Your task to perform on an android device: Go to wifi settings Image 0: 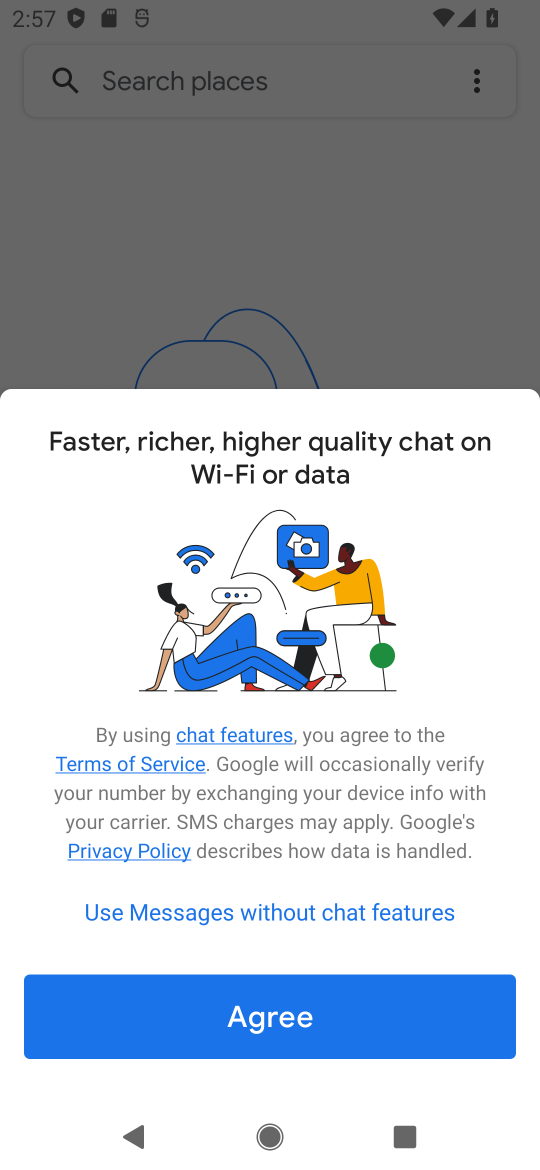
Step 0: press home button
Your task to perform on an android device: Go to wifi settings Image 1: 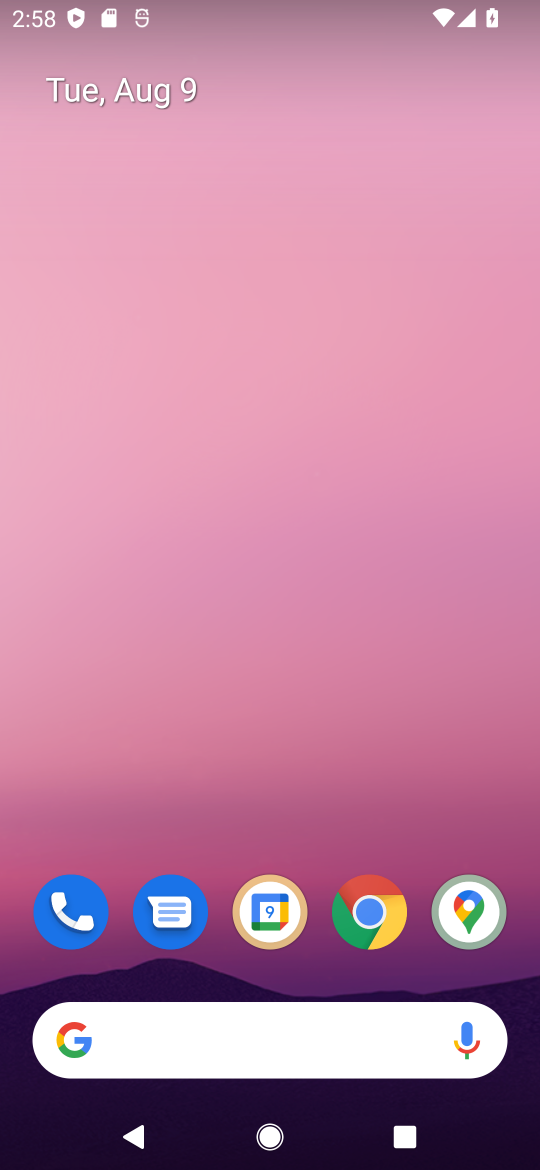
Step 1: drag from (301, 824) to (139, 13)
Your task to perform on an android device: Go to wifi settings Image 2: 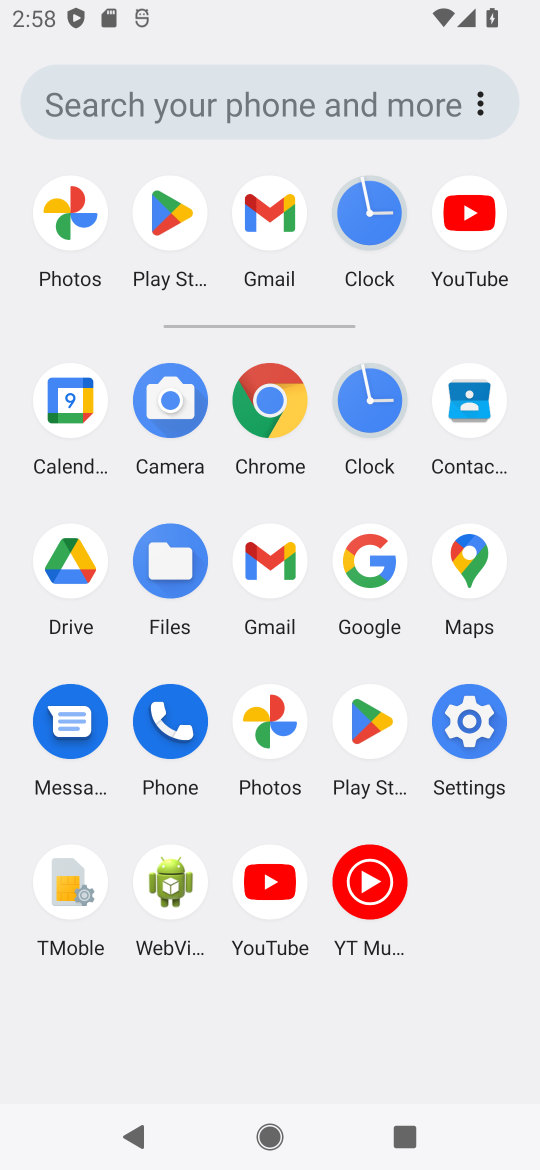
Step 2: click (462, 725)
Your task to perform on an android device: Go to wifi settings Image 3: 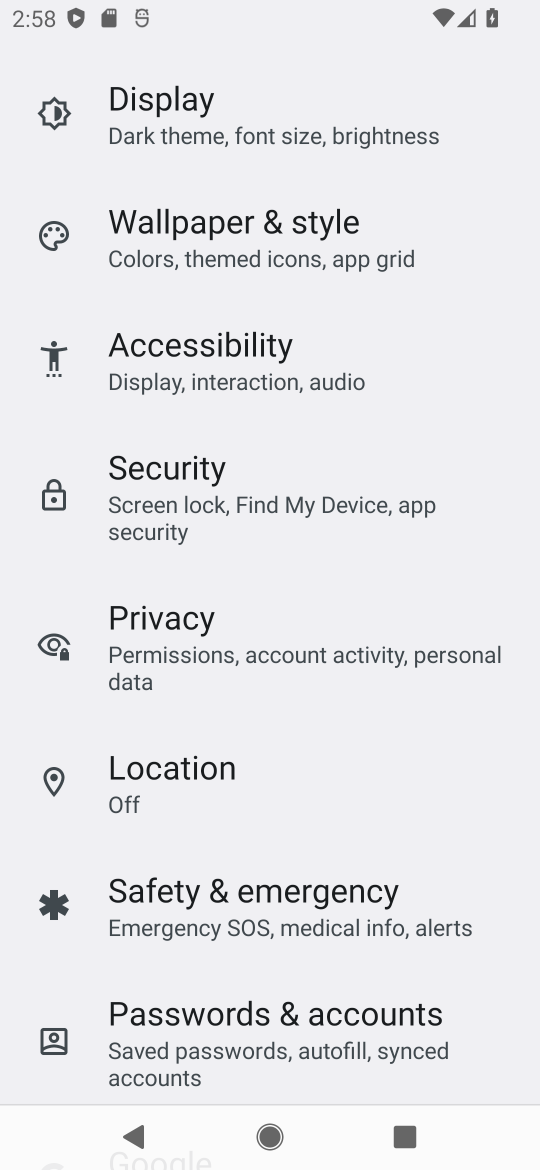
Step 3: drag from (286, 372) to (386, 1165)
Your task to perform on an android device: Go to wifi settings Image 4: 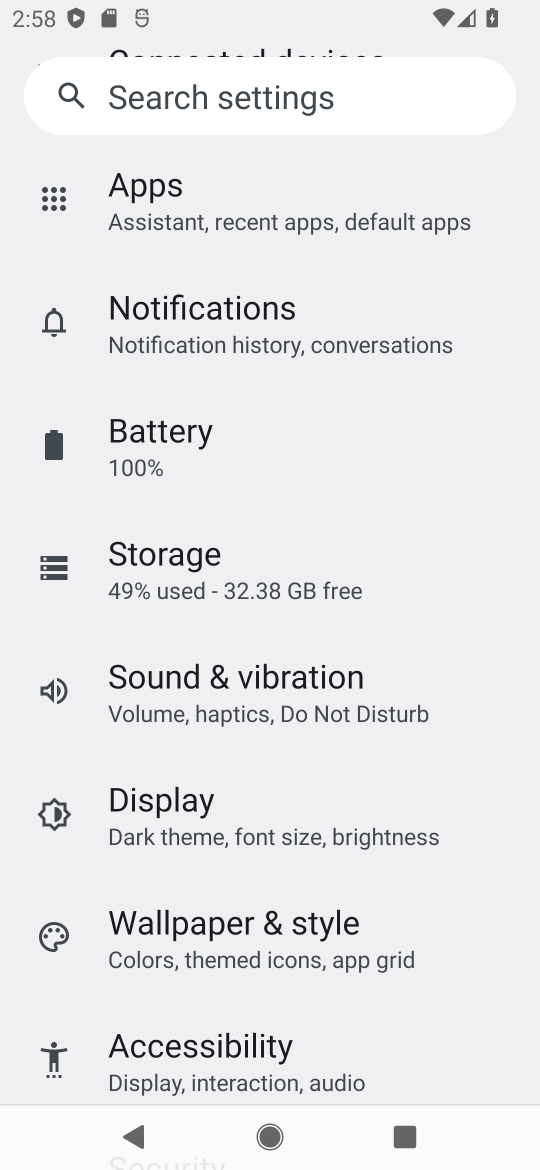
Step 4: drag from (280, 272) to (337, 1141)
Your task to perform on an android device: Go to wifi settings Image 5: 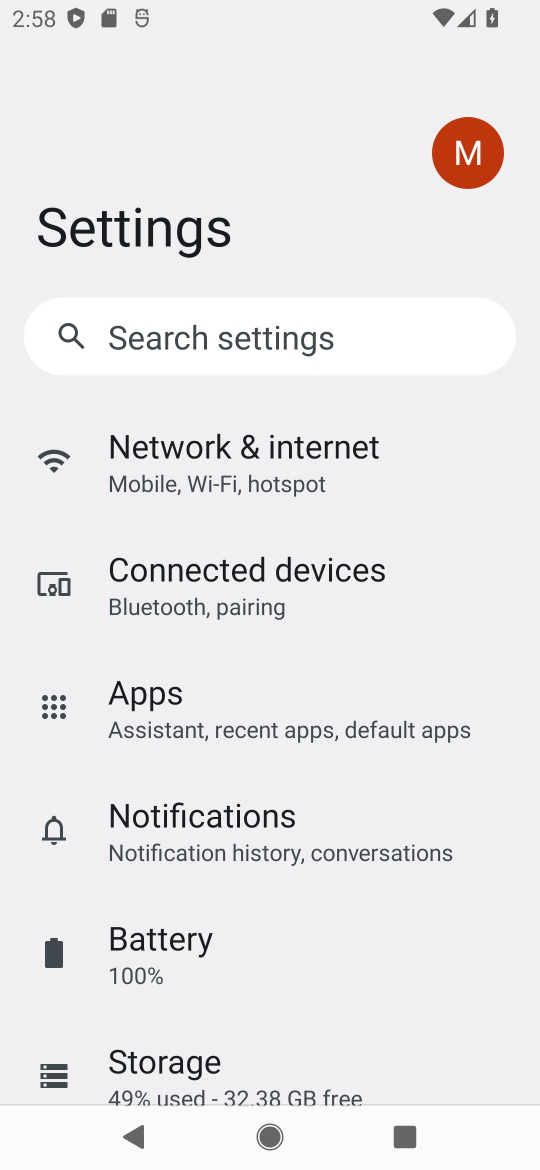
Step 5: click (258, 452)
Your task to perform on an android device: Go to wifi settings Image 6: 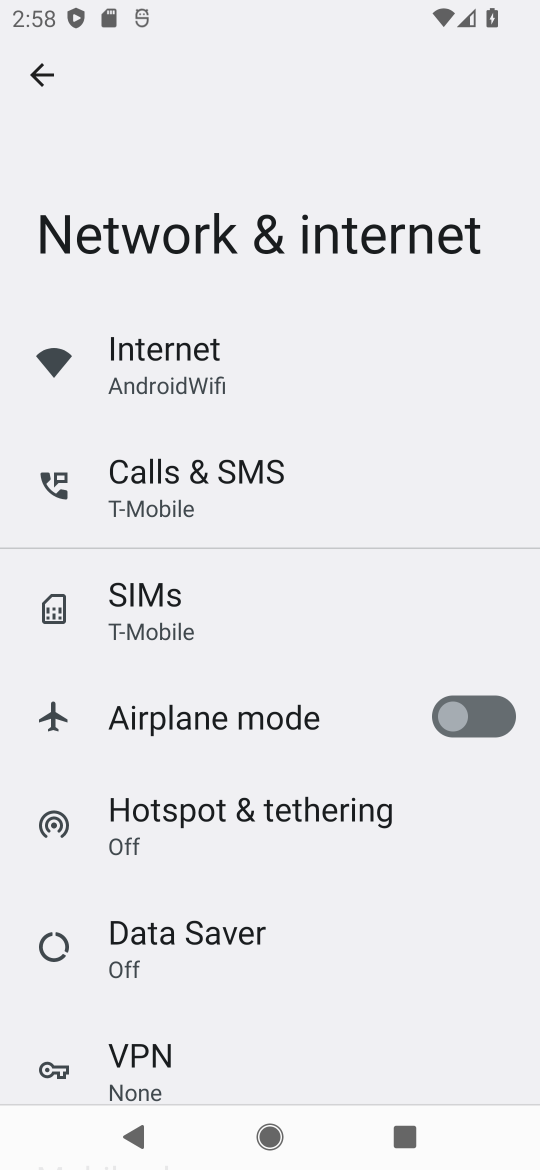
Step 6: click (153, 352)
Your task to perform on an android device: Go to wifi settings Image 7: 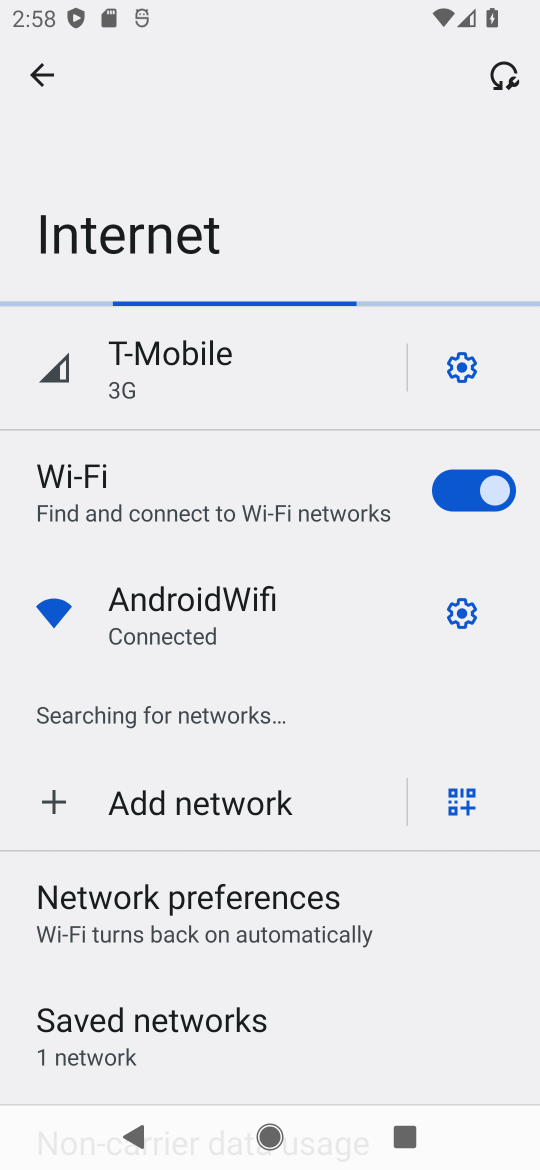
Step 7: task complete